Your task to perform on an android device: Open the stopwatch Image 0: 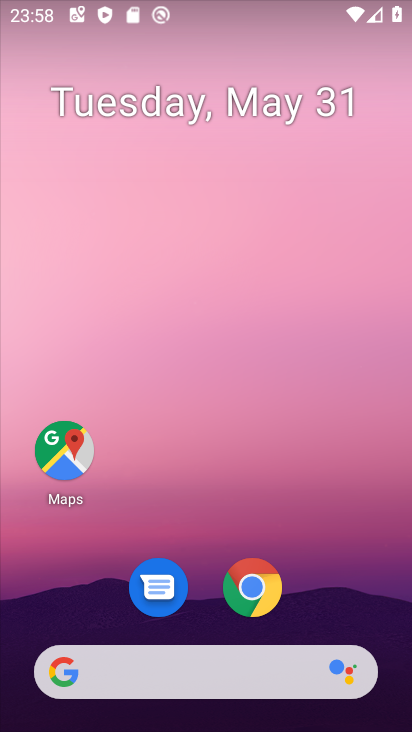
Step 0: drag from (323, 608) to (391, 2)
Your task to perform on an android device: Open the stopwatch Image 1: 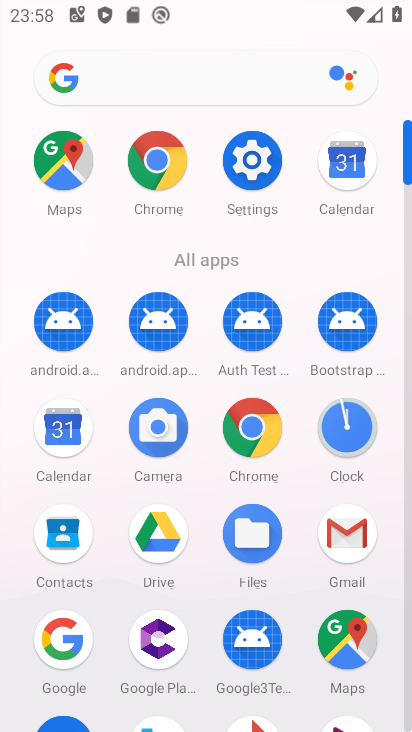
Step 1: click (347, 440)
Your task to perform on an android device: Open the stopwatch Image 2: 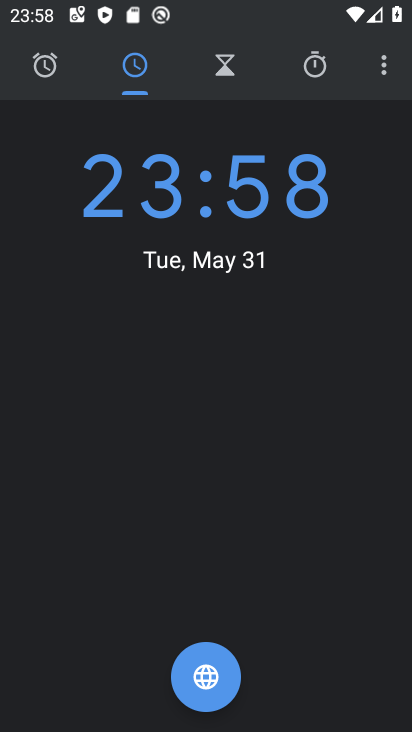
Step 2: click (328, 73)
Your task to perform on an android device: Open the stopwatch Image 3: 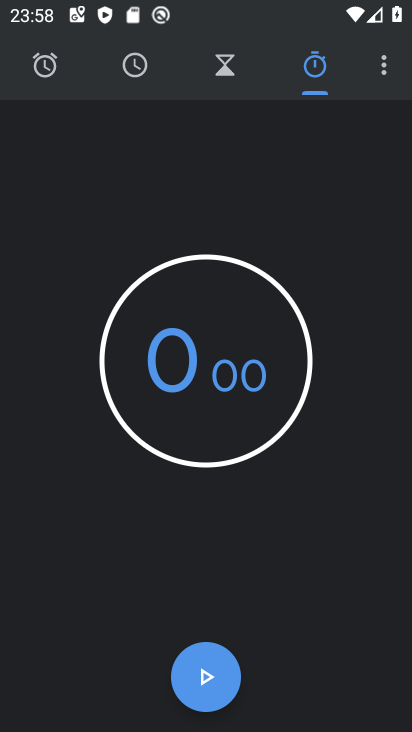
Step 3: task complete